Your task to perform on an android device: Open location settings Image 0: 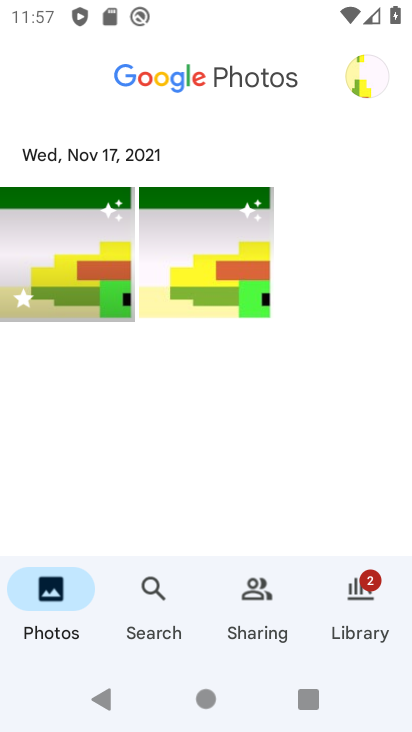
Step 0: press home button
Your task to perform on an android device: Open location settings Image 1: 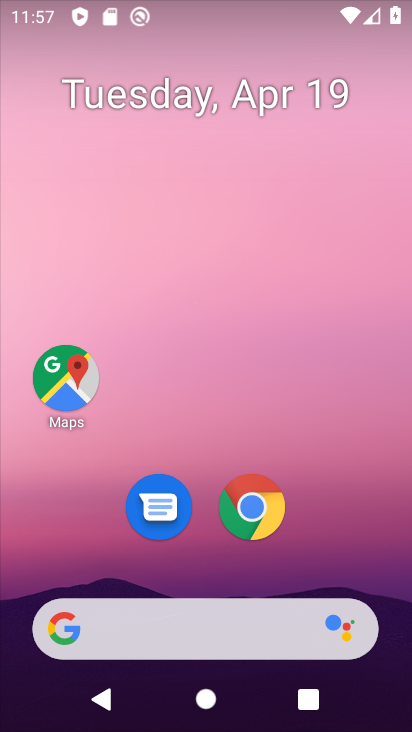
Step 1: drag from (361, 520) to (330, 112)
Your task to perform on an android device: Open location settings Image 2: 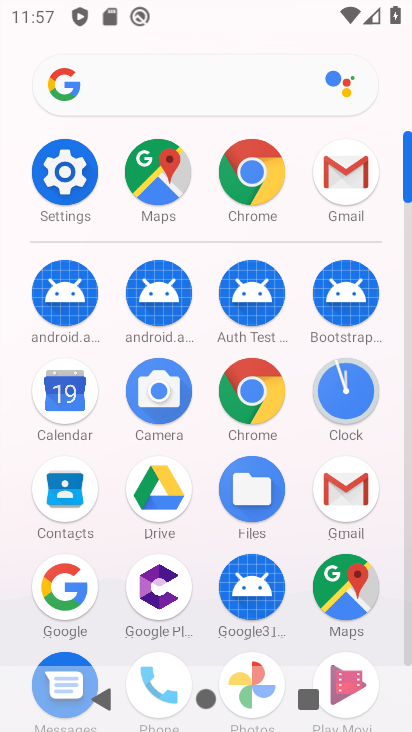
Step 2: click (78, 186)
Your task to perform on an android device: Open location settings Image 3: 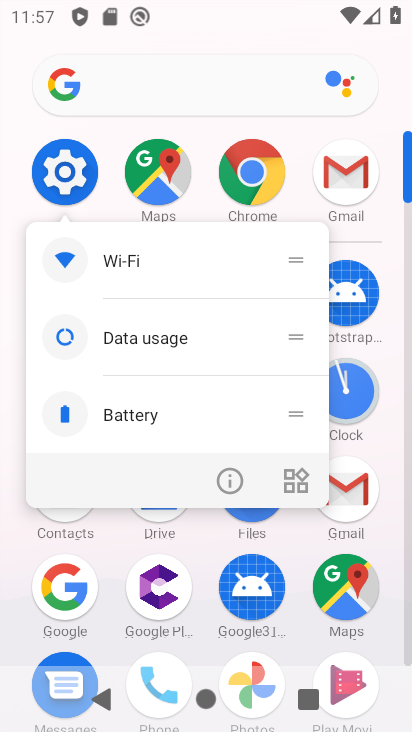
Step 3: click (78, 186)
Your task to perform on an android device: Open location settings Image 4: 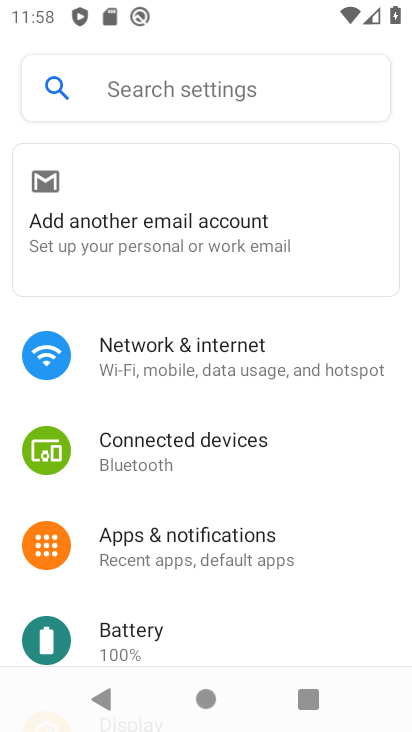
Step 4: drag from (270, 633) to (274, 299)
Your task to perform on an android device: Open location settings Image 5: 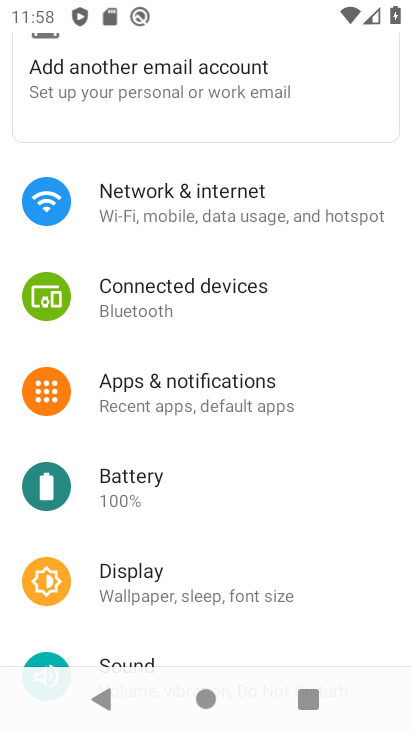
Step 5: drag from (342, 615) to (348, 314)
Your task to perform on an android device: Open location settings Image 6: 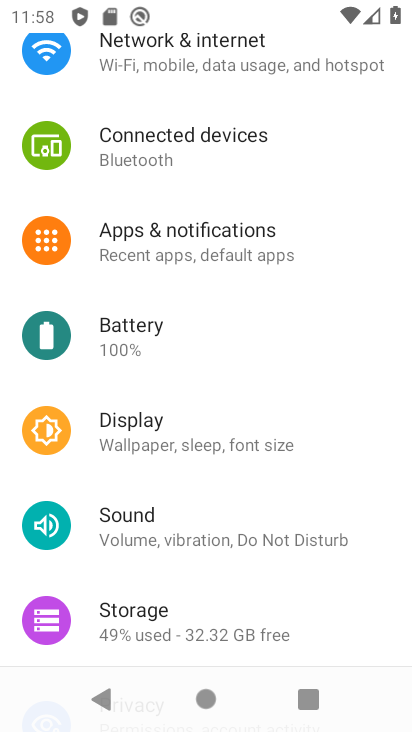
Step 6: drag from (316, 566) to (316, 186)
Your task to perform on an android device: Open location settings Image 7: 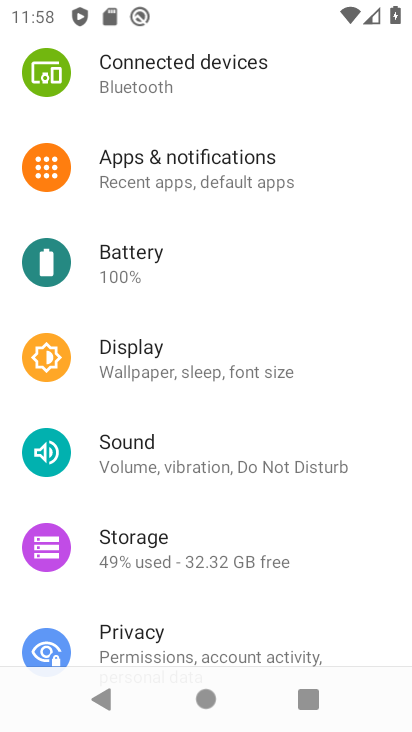
Step 7: drag from (328, 461) to (322, 98)
Your task to perform on an android device: Open location settings Image 8: 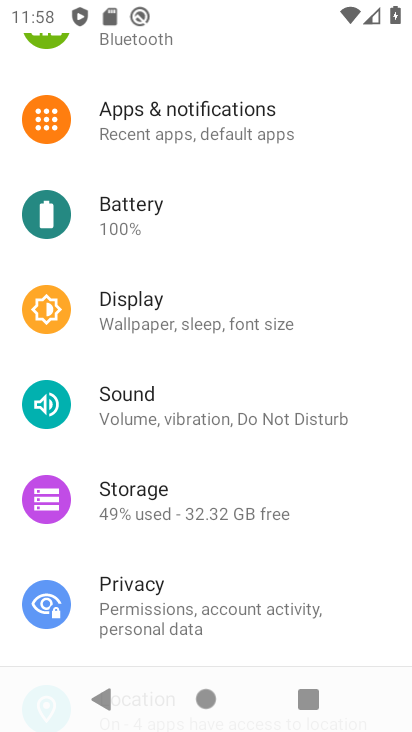
Step 8: drag from (254, 509) to (266, 169)
Your task to perform on an android device: Open location settings Image 9: 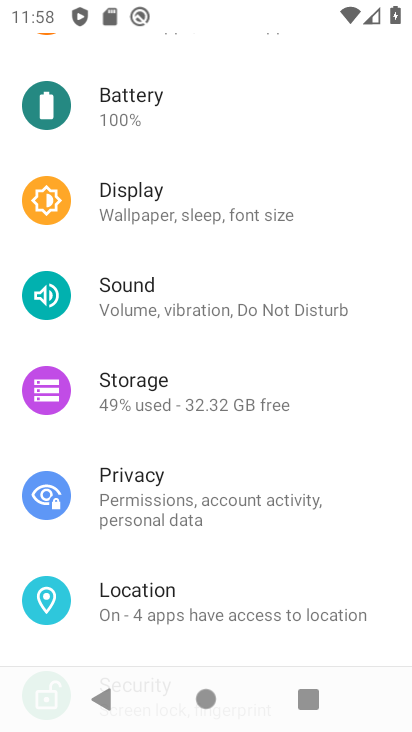
Step 9: click (272, 603)
Your task to perform on an android device: Open location settings Image 10: 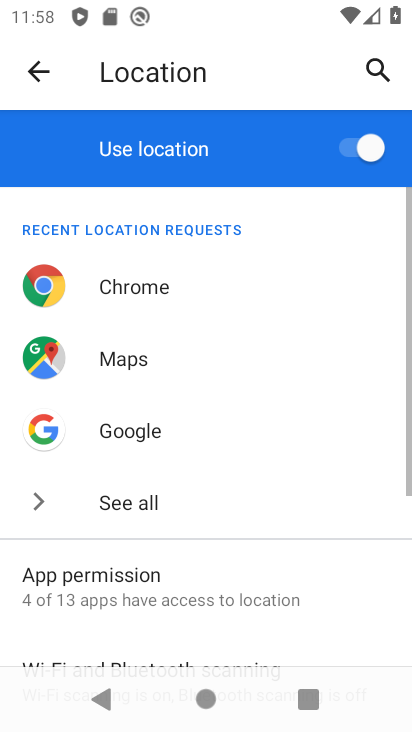
Step 10: drag from (331, 562) to (307, 318)
Your task to perform on an android device: Open location settings Image 11: 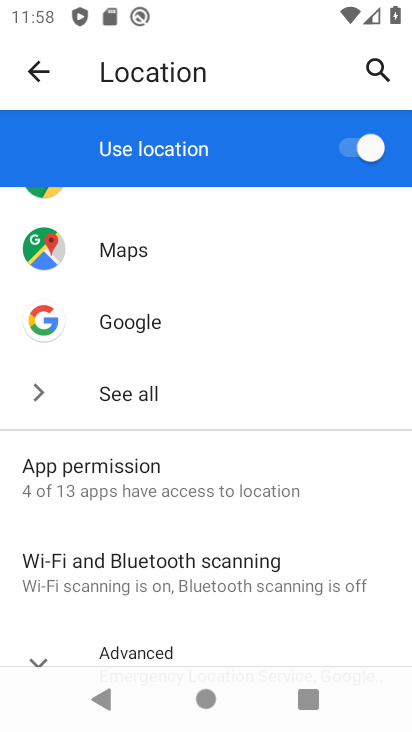
Step 11: drag from (363, 624) to (337, 303)
Your task to perform on an android device: Open location settings Image 12: 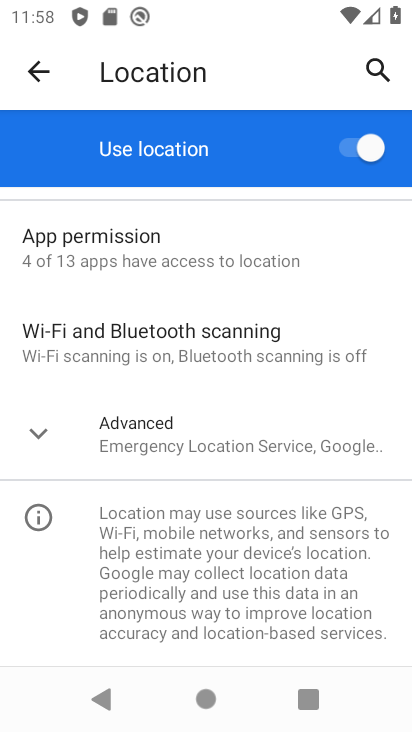
Step 12: click (238, 444)
Your task to perform on an android device: Open location settings Image 13: 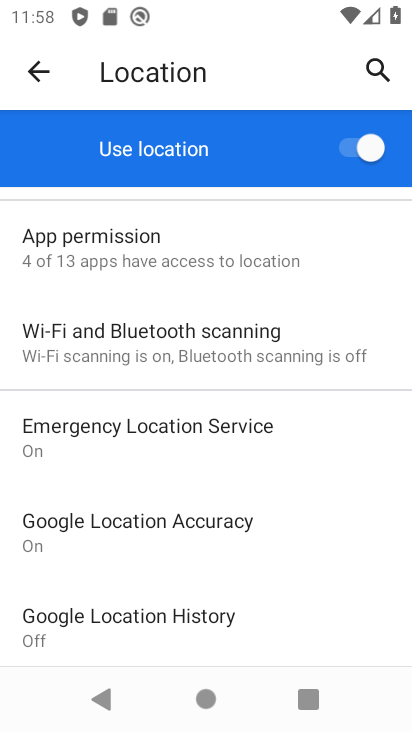
Step 13: task complete